Your task to perform on an android device: install app "Google News" Image 0: 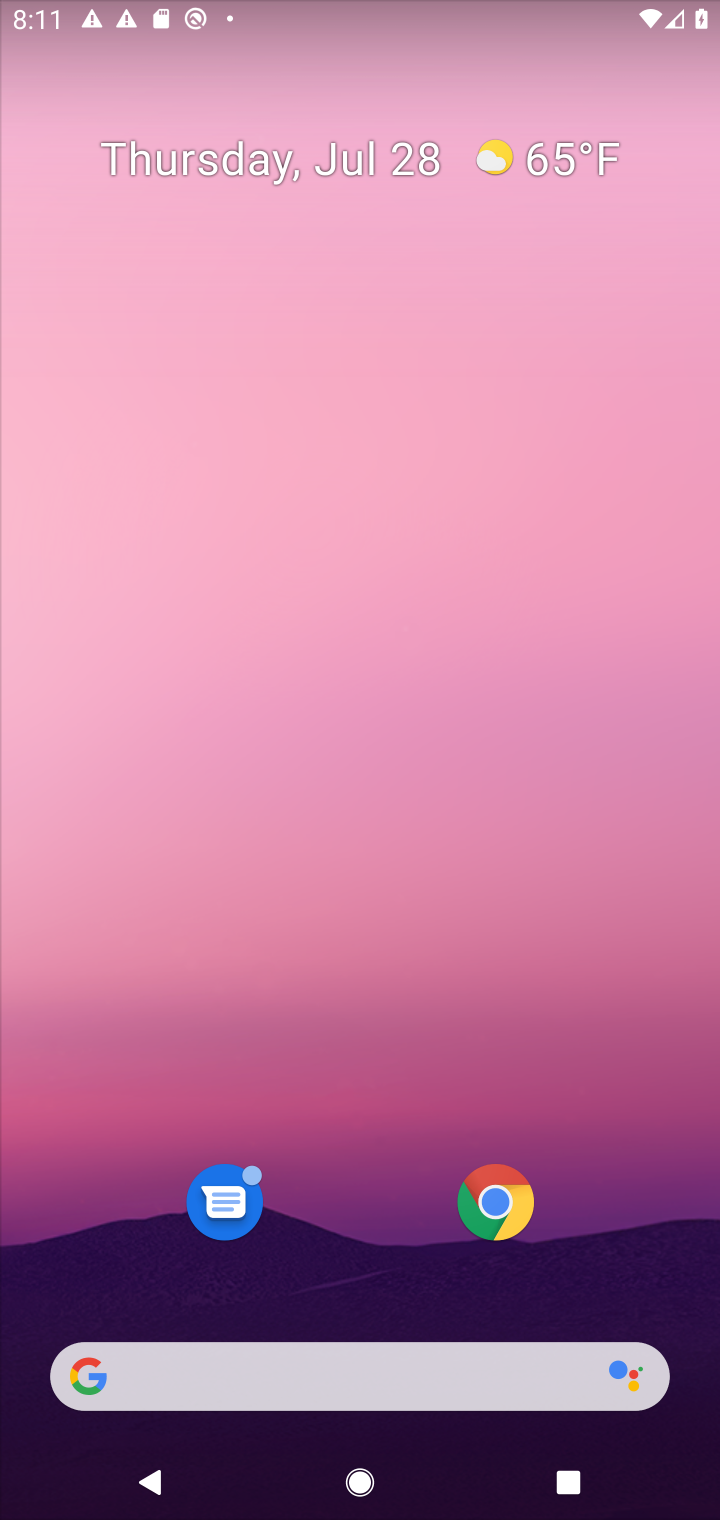
Step 0: drag from (387, 1297) to (511, 90)
Your task to perform on an android device: install app "Google News" Image 1: 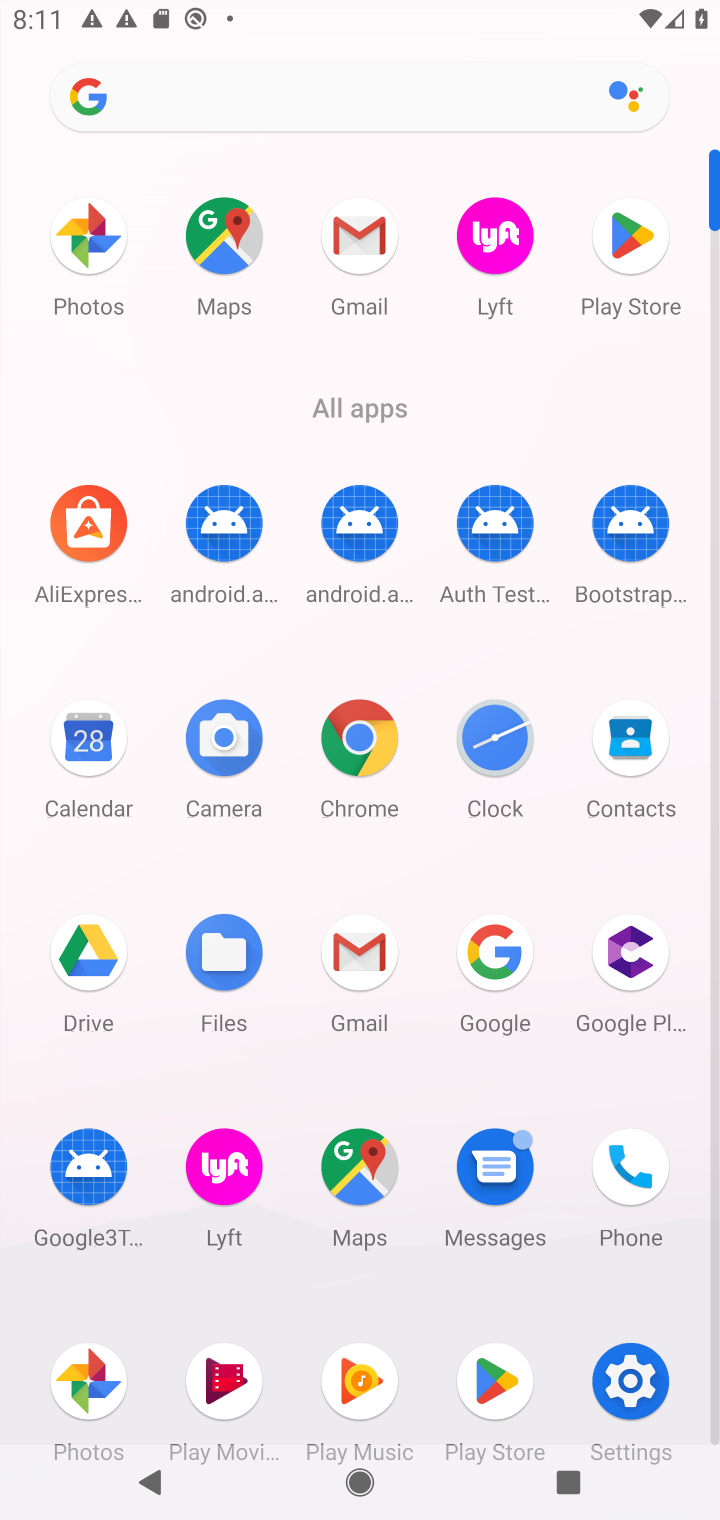
Step 1: click (494, 1381)
Your task to perform on an android device: install app "Google News" Image 2: 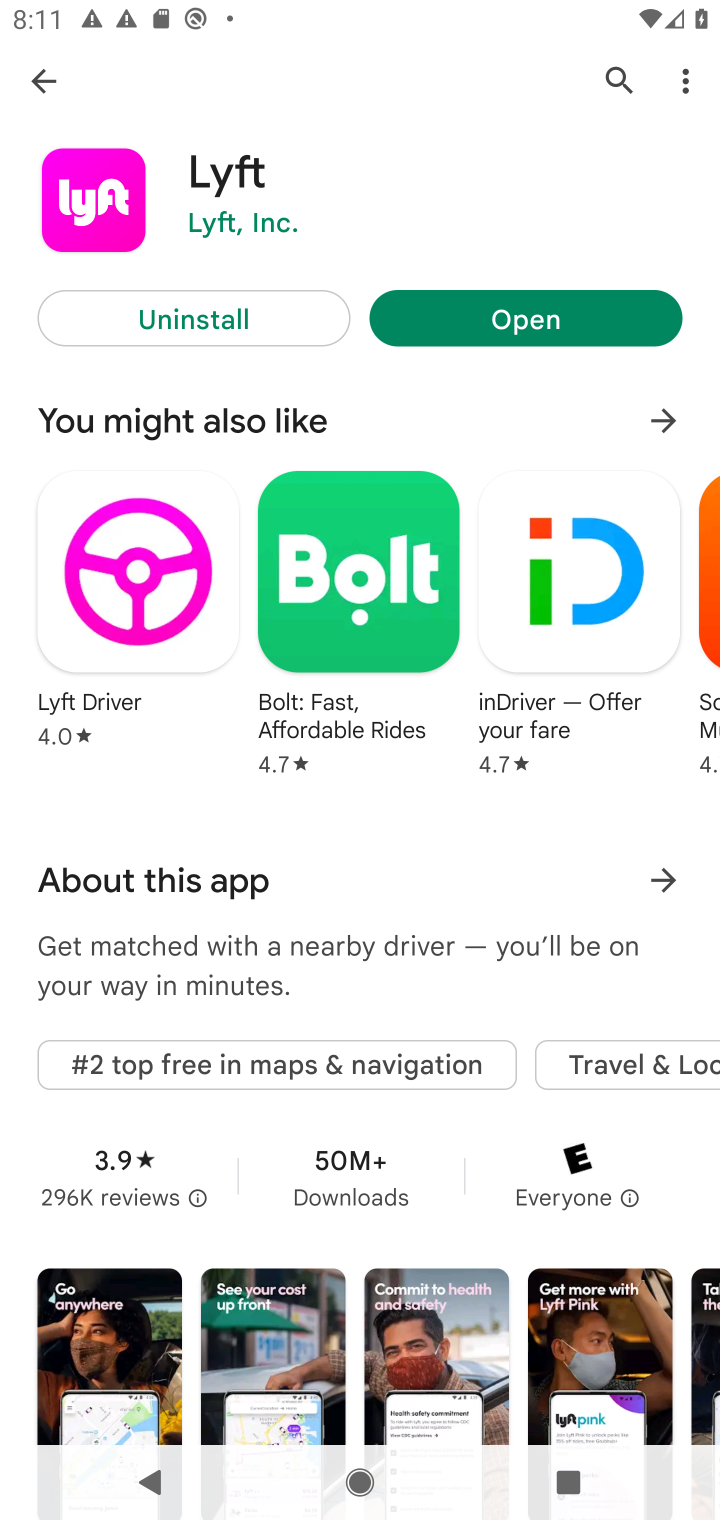
Step 2: click (619, 70)
Your task to perform on an android device: install app "Google News" Image 3: 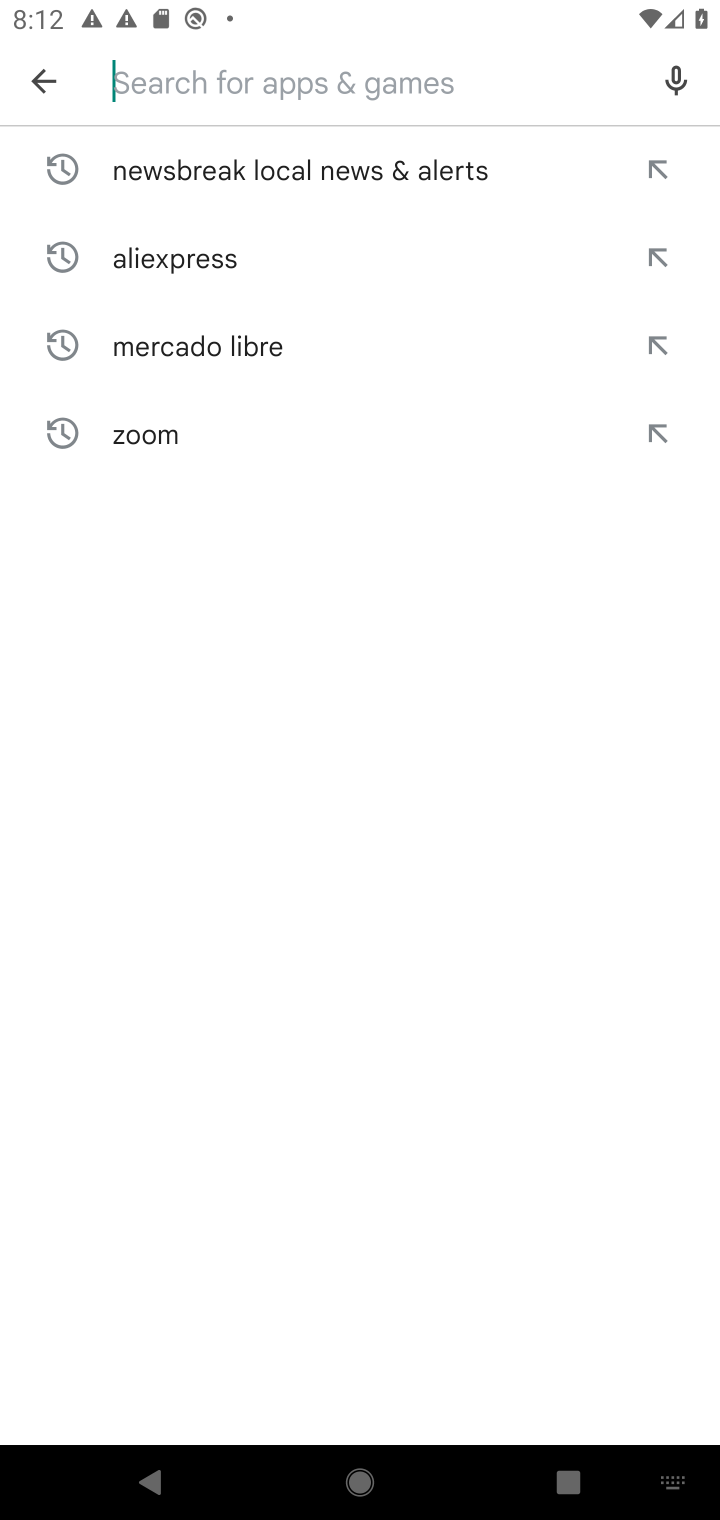
Step 3: type "Google News"
Your task to perform on an android device: install app "Google News" Image 4: 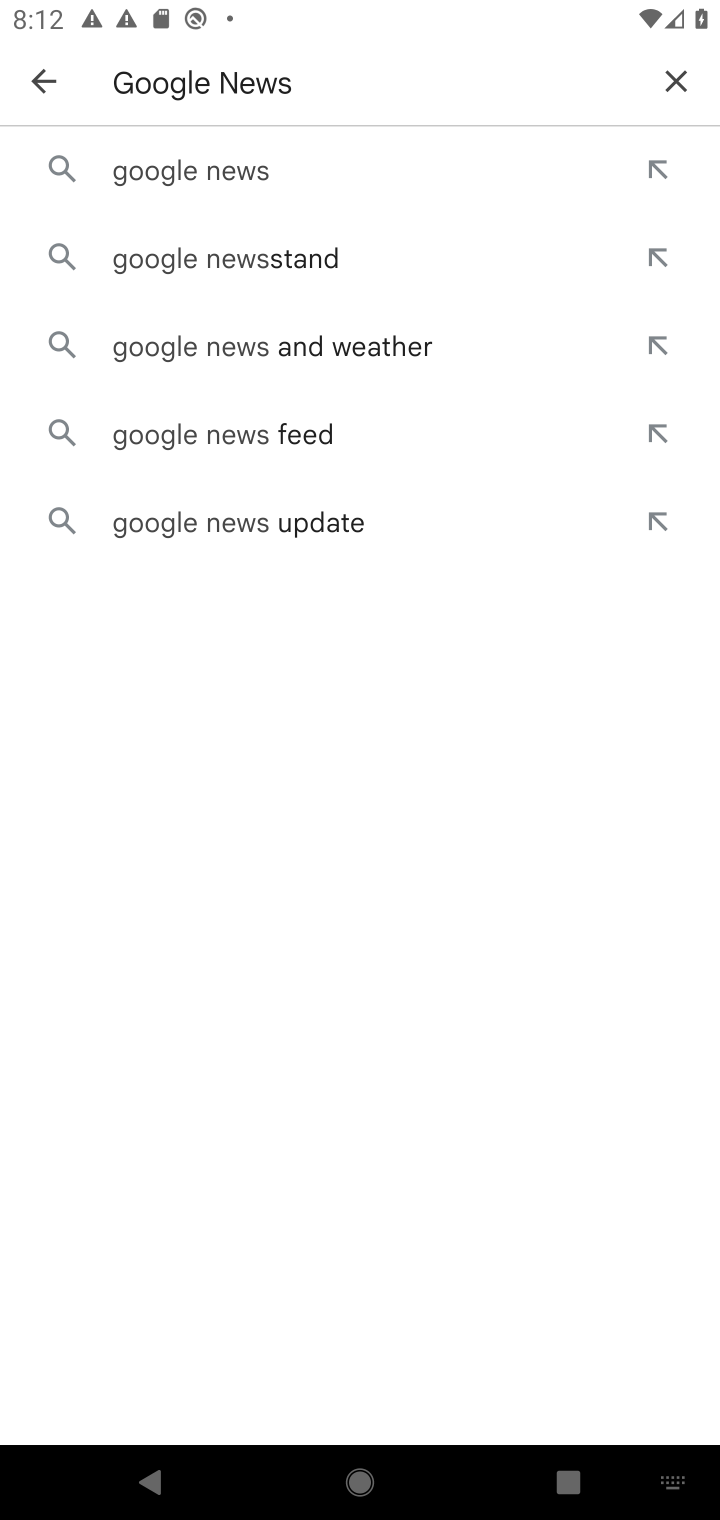
Step 4: click (238, 178)
Your task to perform on an android device: install app "Google News" Image 5: 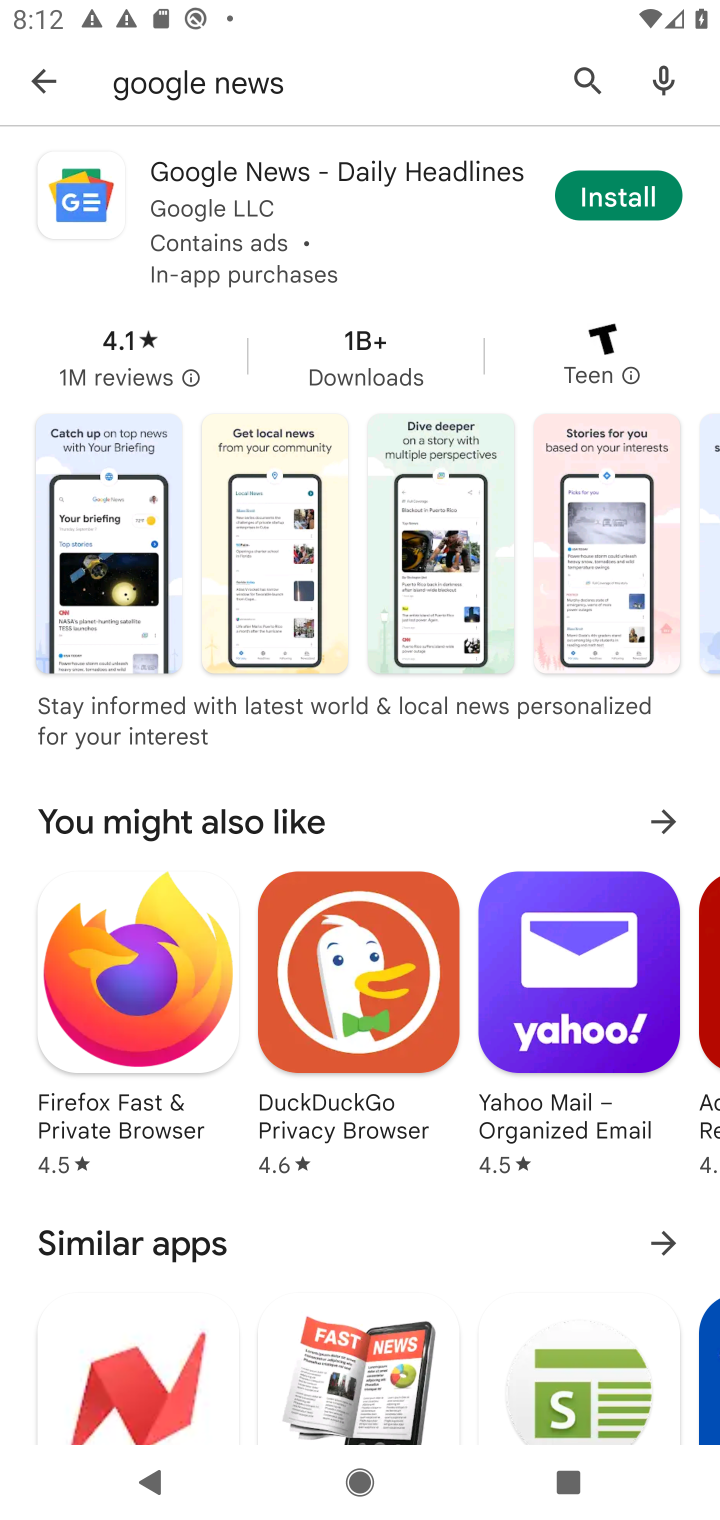
Step 5: click (627, 194)
Your task to perform on an android device: install app "Google News" Image 6: 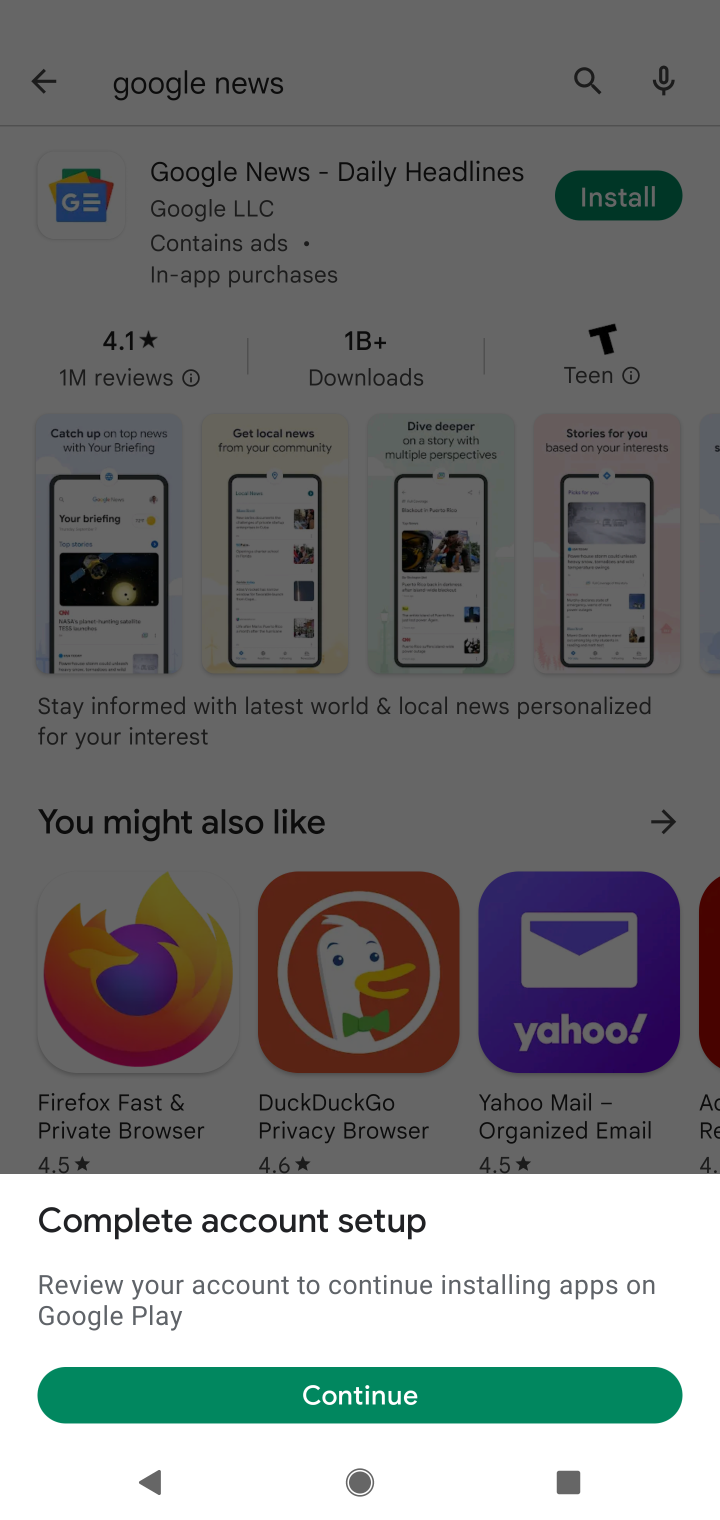
Step 6: click (358, 1386)
Your task to perform on an android device: install app "Google News" Image 7: 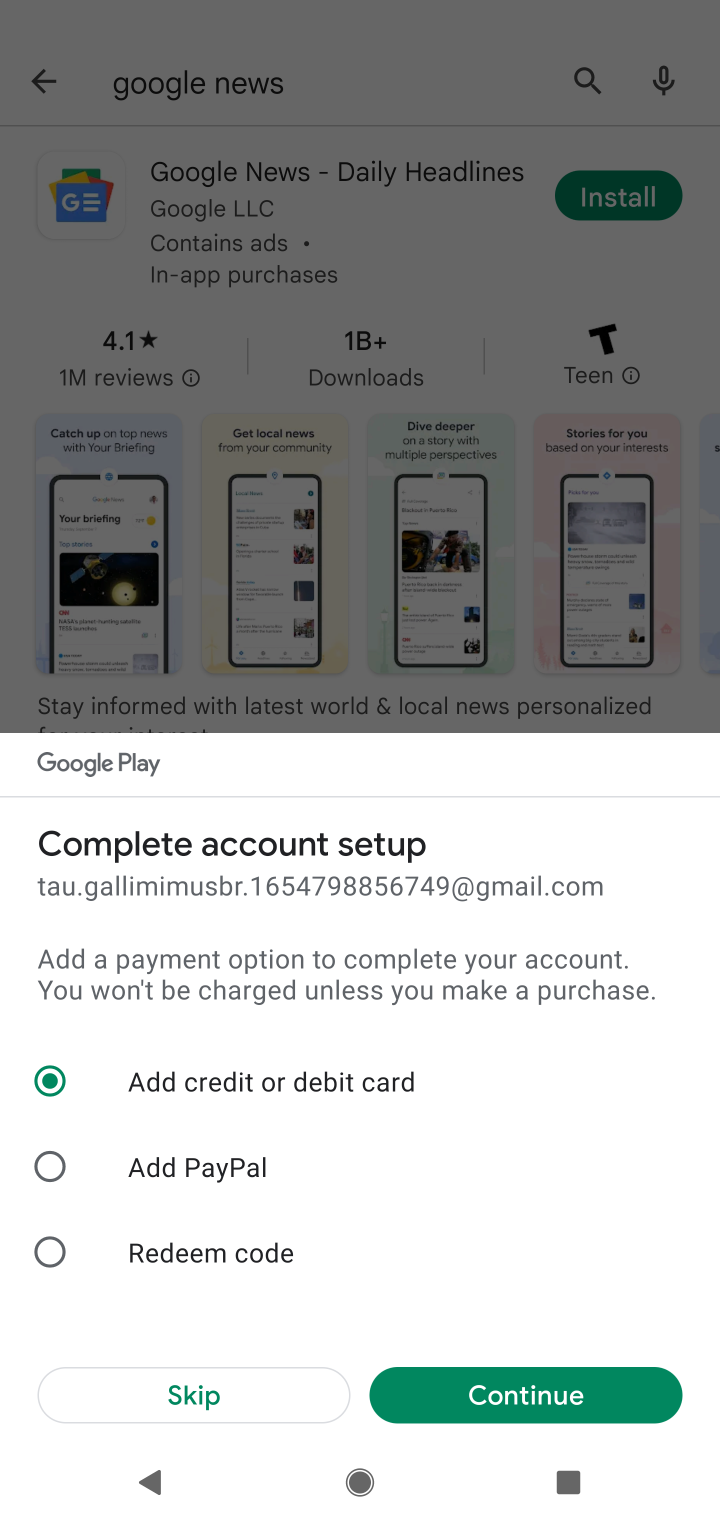
Step 7: click (215, 1393)
Your task to perform on an android device: install app "Google News" Image 8: 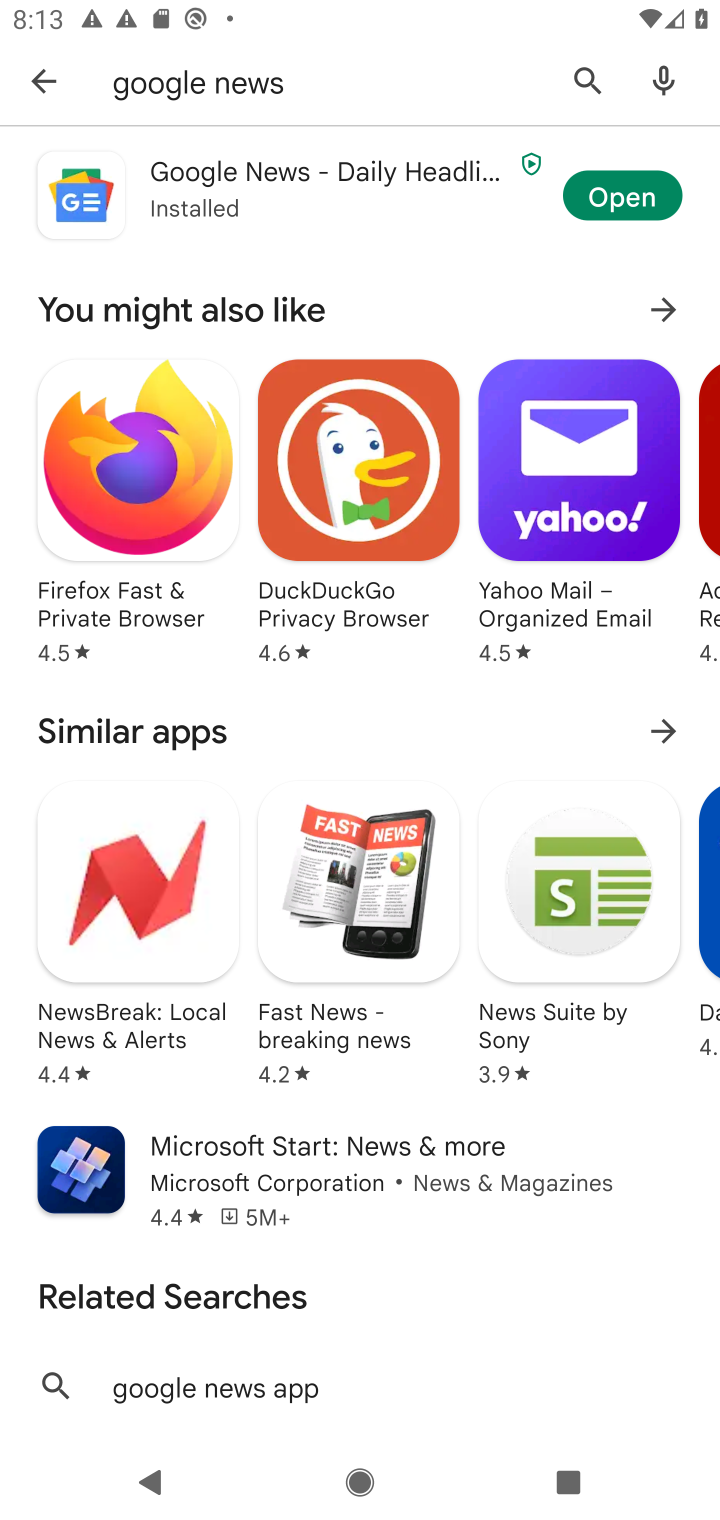
Step 8: click (606, 196)
Your task to perform on an android device: install app "Google News" Image 9: 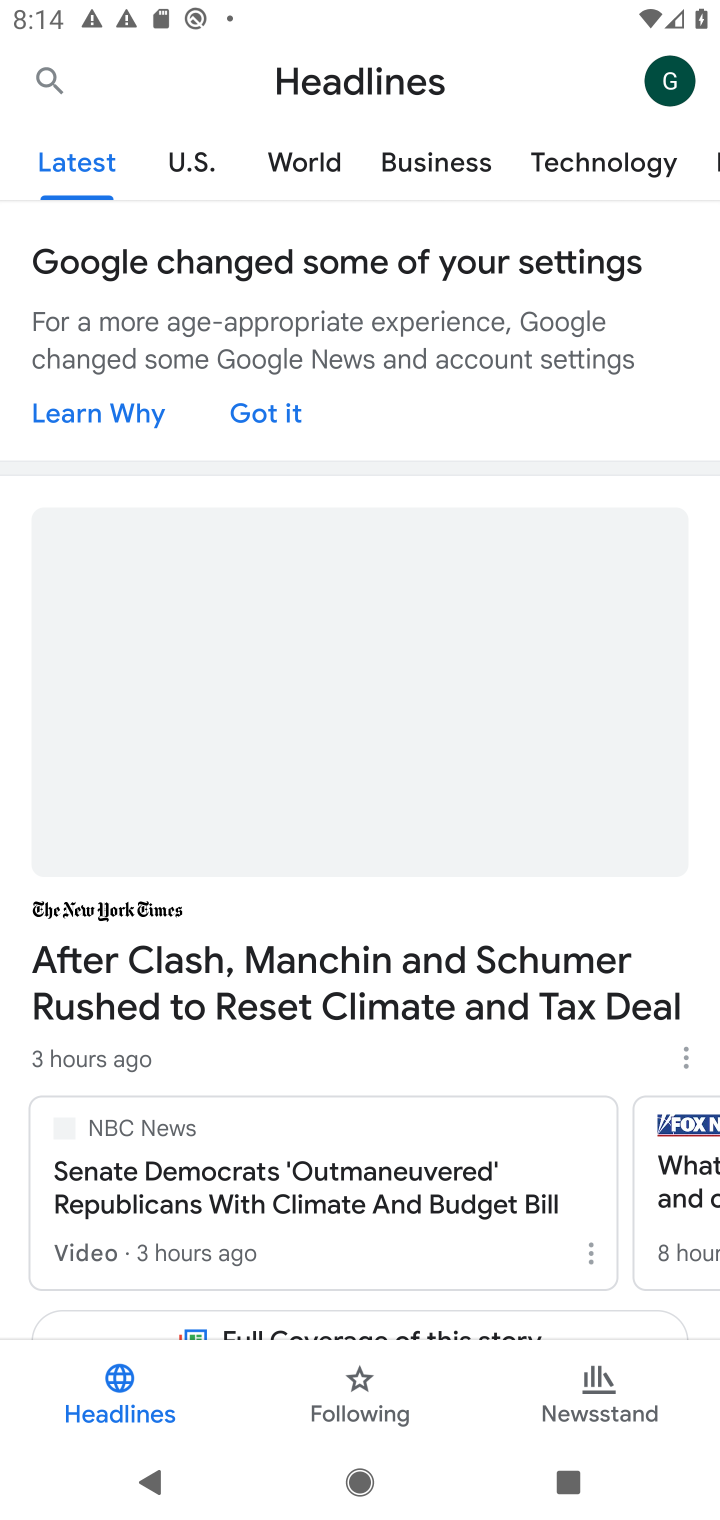
Step 9: task complete